Your task to perform on an android device: toggle airplane mode Image 0: 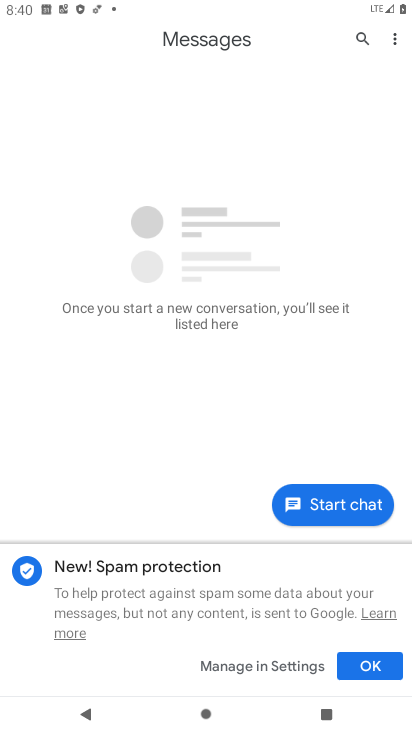
Step 0: press home button
Your task to perform on an android device: toggle airplane mode Image 1: 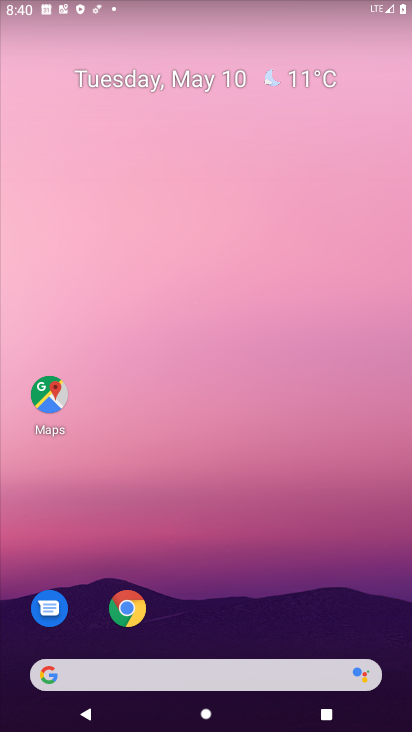
Step 1: drag from (198, 662) to (290, 485)
Your task to perform on an android device: toggle airplane mode Image 2: 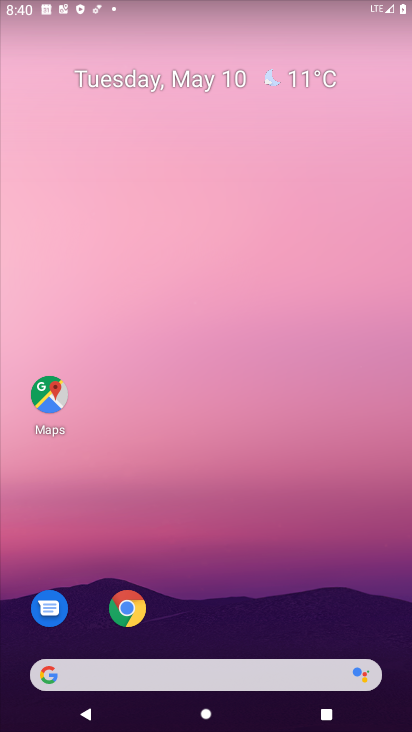
Step 2: drag from (202, 675) to (261, 243)
Your task to perform on an android device: toggle airplane mode Image 3: 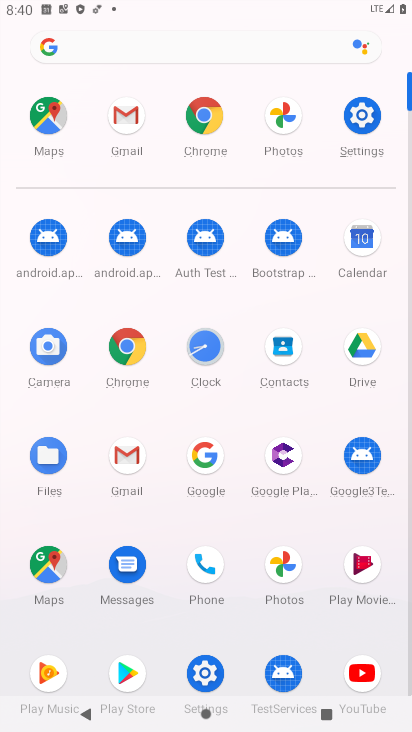
Step 3: click (359, 121)
Your task to perform on an android device: toggle airplane mode Image 4: 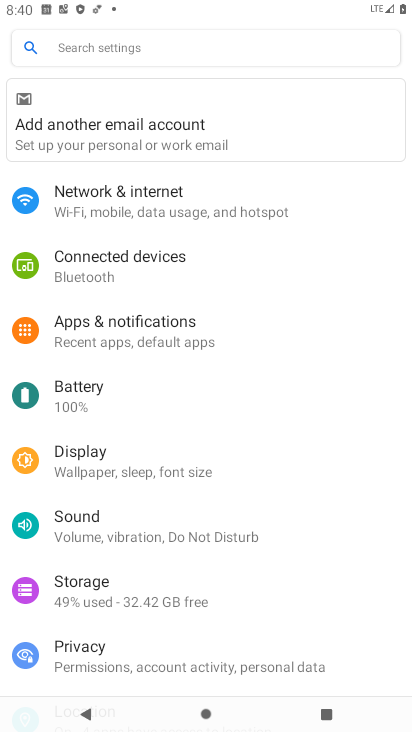
Step 4: click (153, 198)
Your task to perform on an android device: toggle airplane mode Image 5: 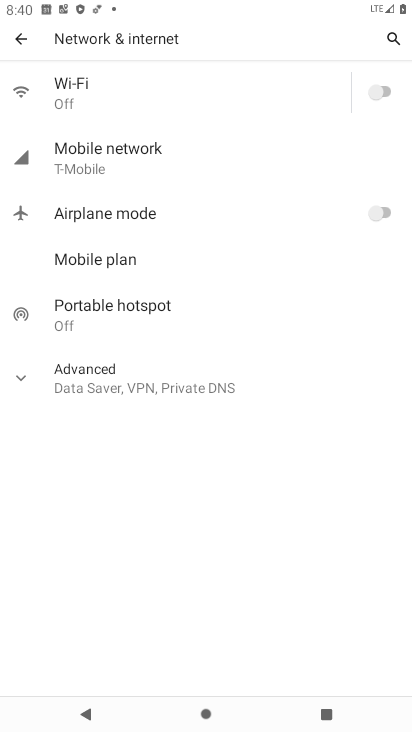
Step 5: click (397, 215)
Your task to perform on an android device: toggle airplane mode Image 6: 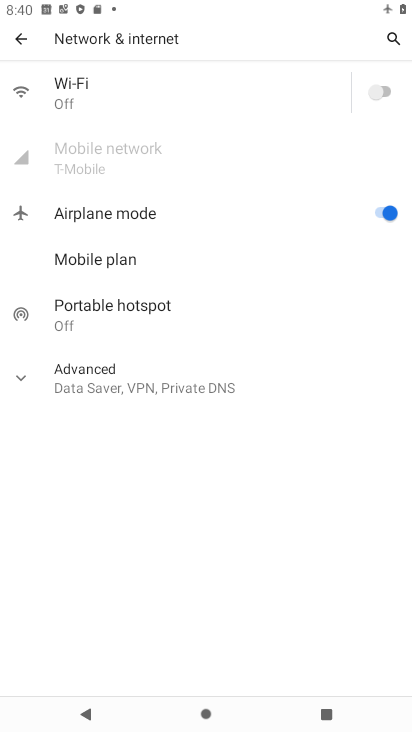
Step 6: task complete